Your task to perform on an android device: refresh tabs in the chrome app Image 0: 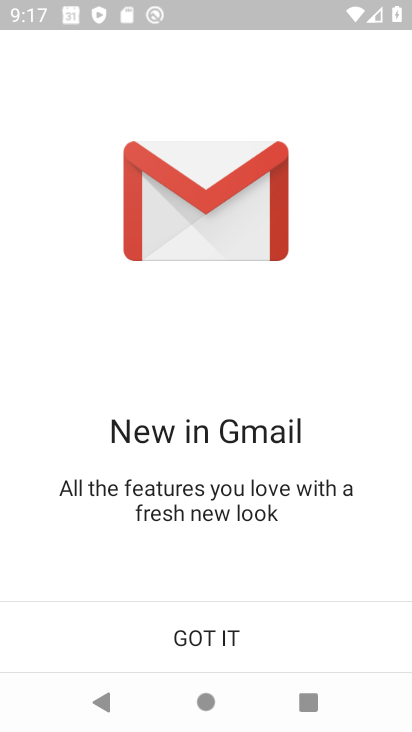
Step 0: press home button
Your task to perform on an android device: refresh tabs in the chrome app Image 1: 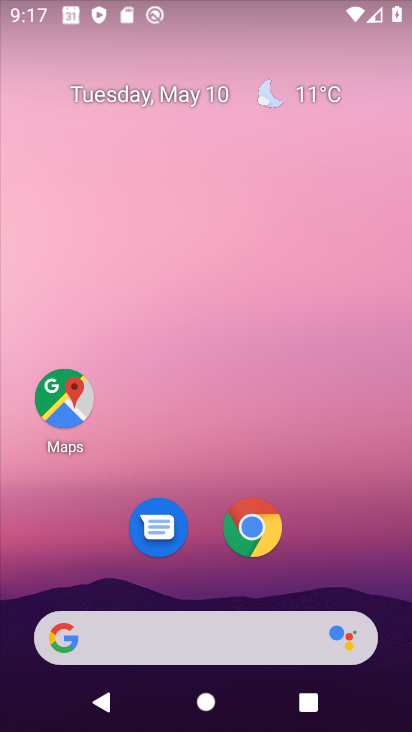
Step 1: click (265, 512)
Your task to perform on an android device: refresh tabs in the chrome app Image 2: 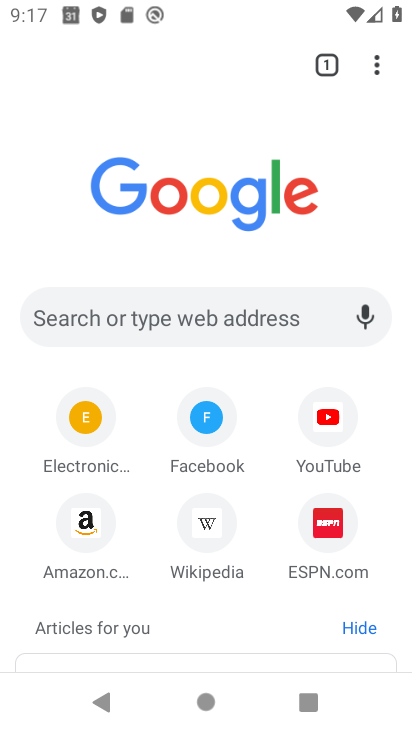
Step 2: click (382, 69)
Your task to perform on an android device: refresh tabs in the chrome app Image 3: 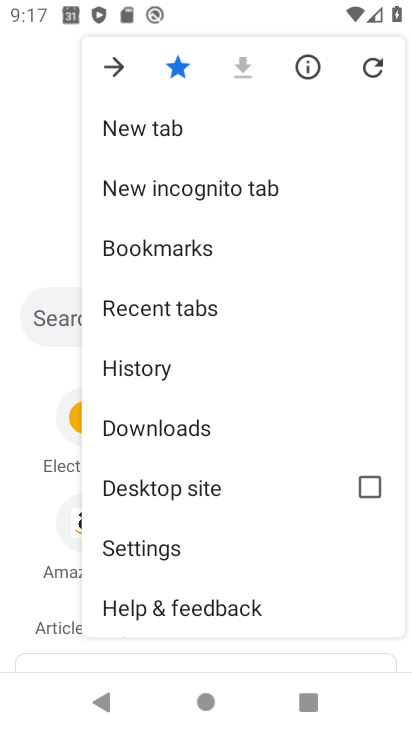
Step 3: click (382, 69)
Your task to perform on an android device: refresh tabs in the chrome app Image 4: 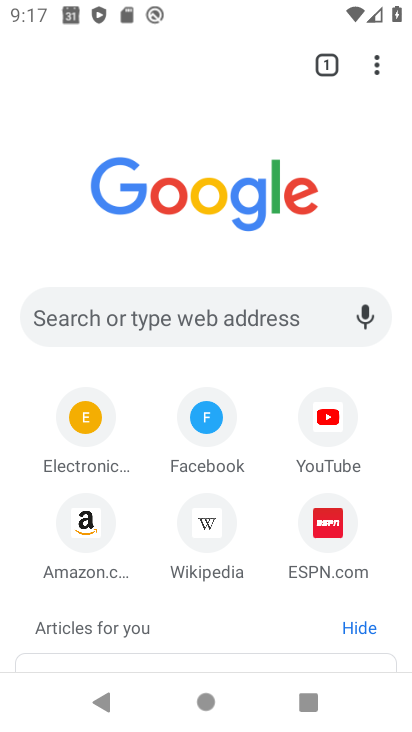
Step 4: task complete